Your task to perform on an android device: change the clock display to digital Image 0: 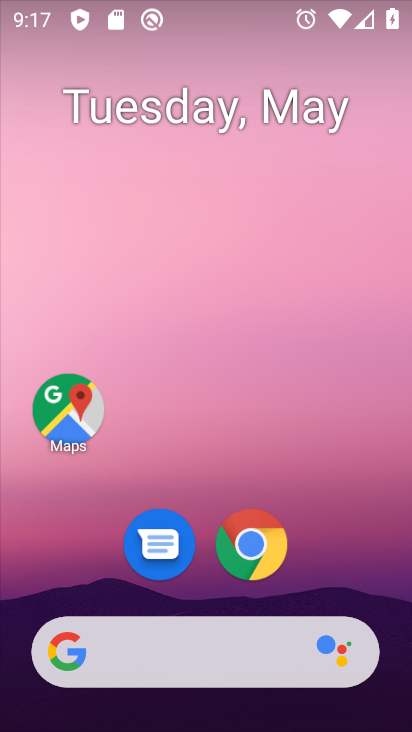
Step 0: drag from (353, 577) to (330, 244)
Your task to perform on an android device: change the clock display to digital Image 1: 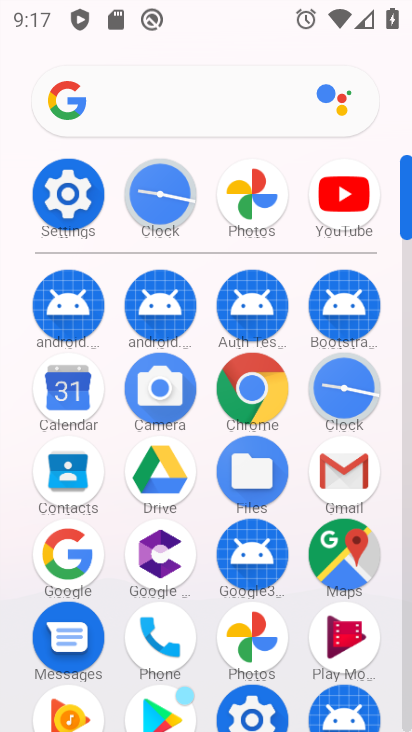
Step 1: click (65, 213)
Your task to perform on an android device: change the clock display to digital Image 2: 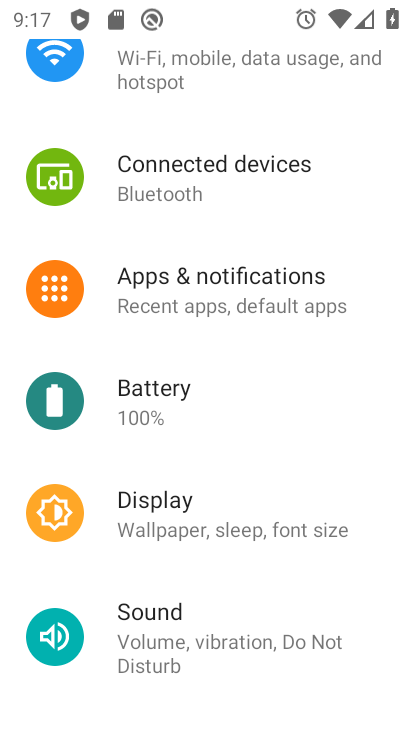
Step 2: press home button
Your task to perform on an android device: change the clock display to digital Image 3: 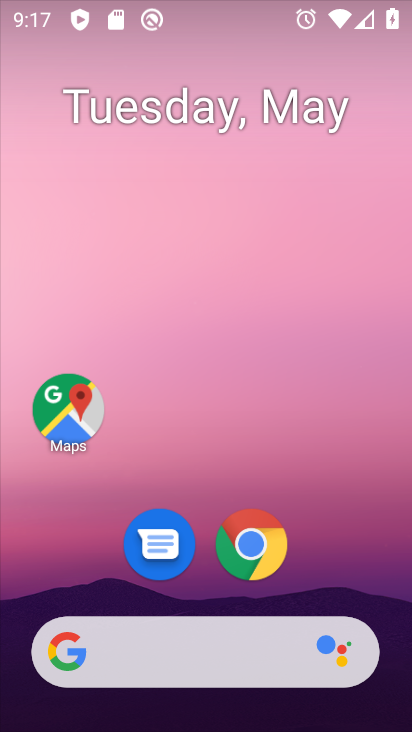
Step 3: drag from (383, 578) to (358, 151)
Your task to perform on an android device: change the clock display to digital Image 4: 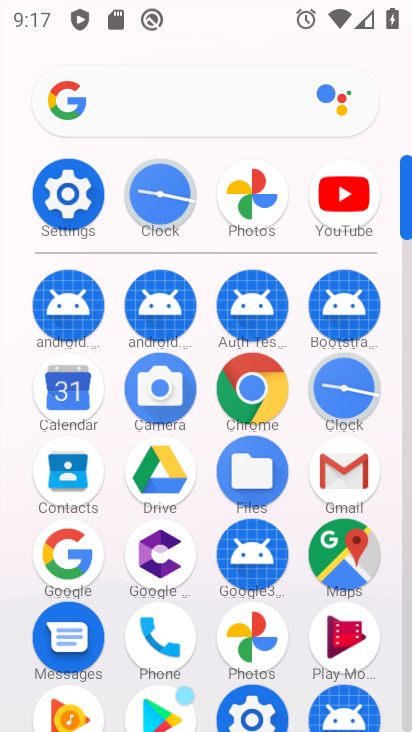
Step 4: click (367, 383)
Your task to perform on an android device: change the clock display to digital Image 5: 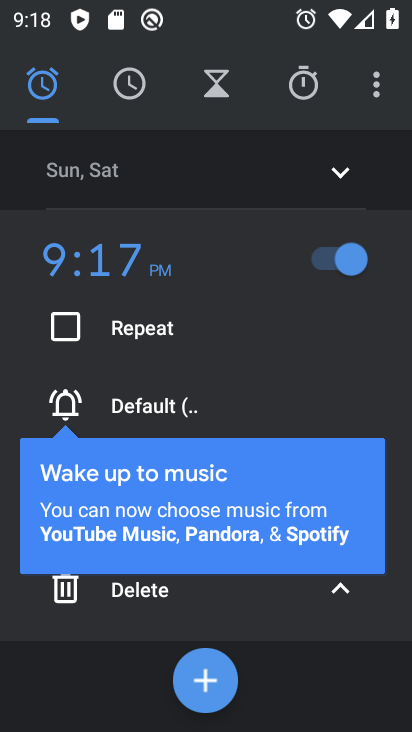
Step 5: click (135, 89)
Your task to perform on an android device: change the clock display to digital Image 6: 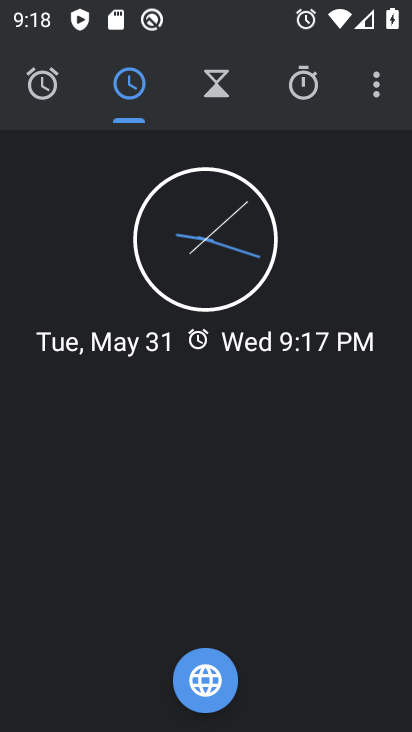
Step 6: click (386, 77)
Your task to perform on an android device: change the clock display to digital Image 7: 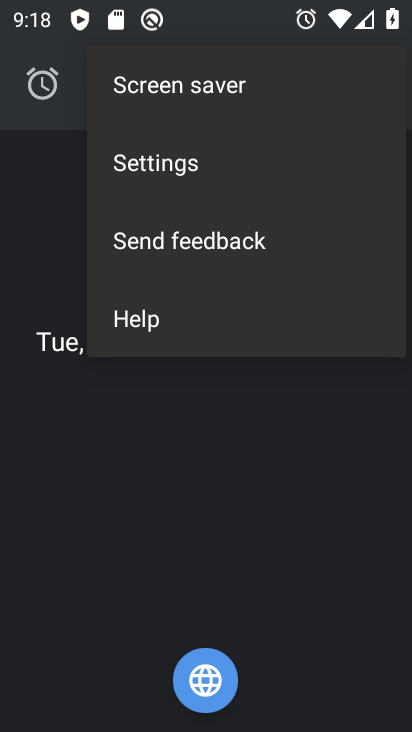
Step 7: click (163, 161)
Your task to perform on an android device: change the clock display to digital Image 8: 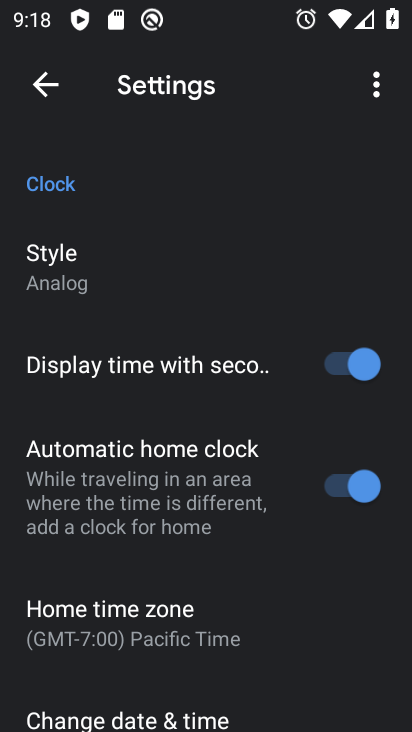
Step 8: click (127, 273)
Your task to perform on an android device: change the clock display to digital Image 9: 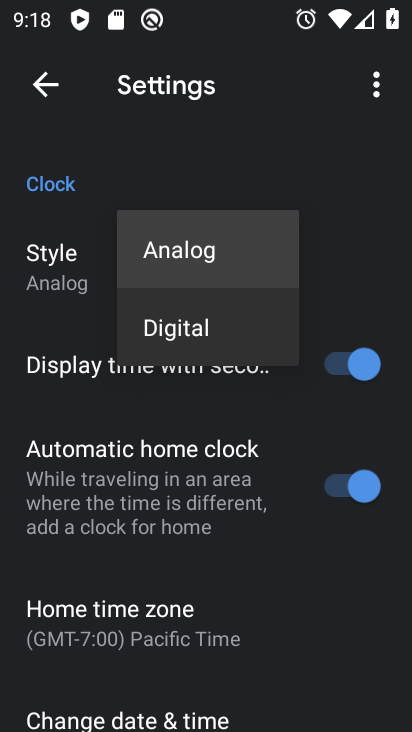
Step 9: click (156, 331)
Your task to perform on an android device: change the clock display to digital Image 10: 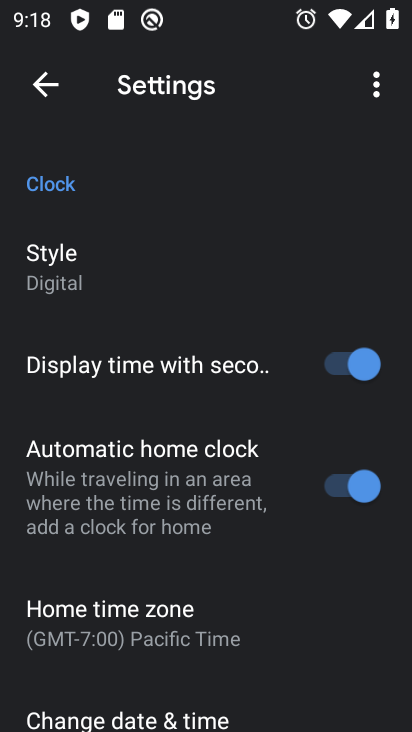
Step 10: task complete